Your task to perform on an android device: open app "Cash App" (install if not already installed) Image 0: 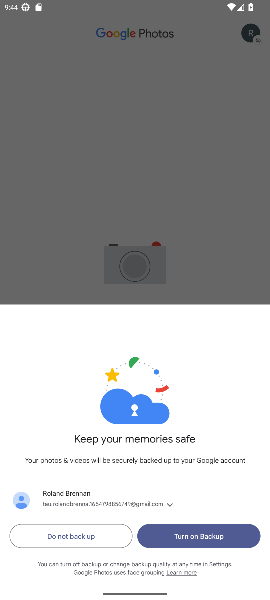
Step 0: press home button
Your task to perform on an android device: open app "Cash App" (install if not already installed) Image 1: 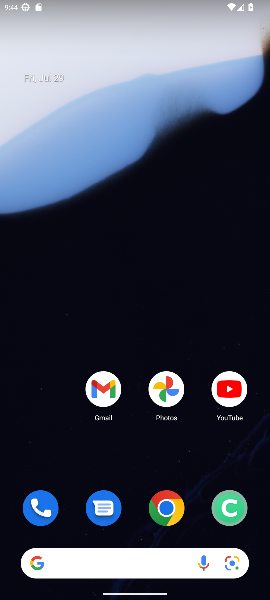
Step 1: drag from (144, 554) to (143, 17)
Your task to perform on an android device: open app "Cash App" (install if not already installed) Image 2: 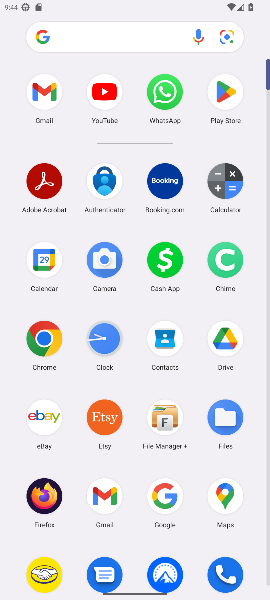
Step 2: drag from (192, 515) to (157, 262)
Your task to perform on an android device: open app "Cash App" (install if not already installed) Image 3: 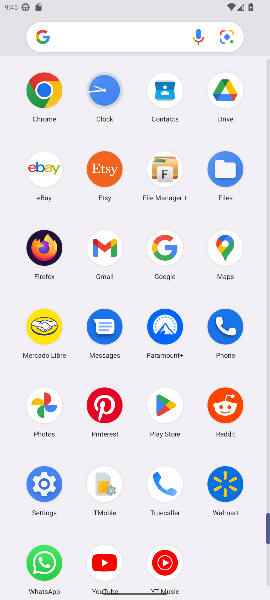
Step 3: click (173, 409)
Your task to perform on an android device: open app "Cash App" (install if not already installed) Image 4: 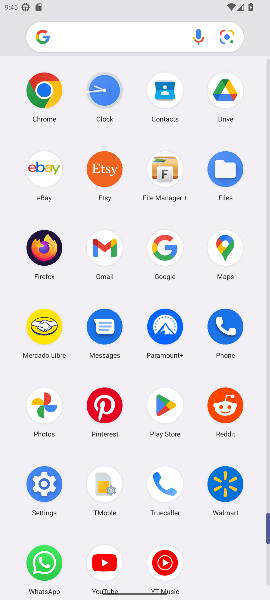
Step 4: click (173, 409)
Your task to perform on an android device: open app "Cash App" (install if not already installed) Image 5: 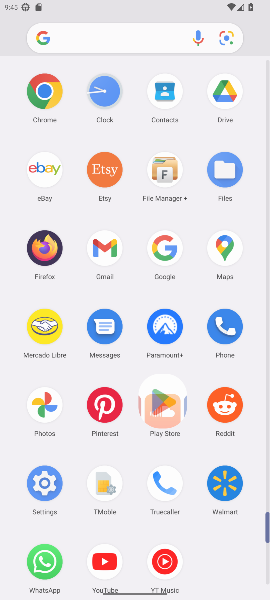
Step 5: click (173, 409)
Your task to perform on an android device: open app "Cash App" (install if not already installed) Image 6: 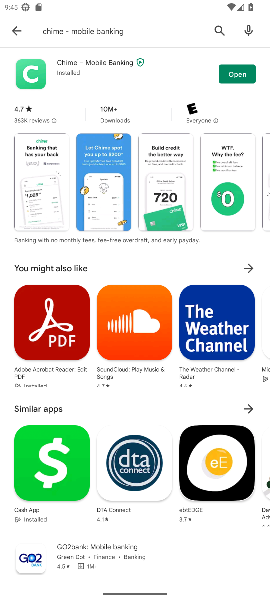
Step 6: click (214, 24)
Your task to perform on an android device: open app "Cash App" (install if not already installed) Image 7: 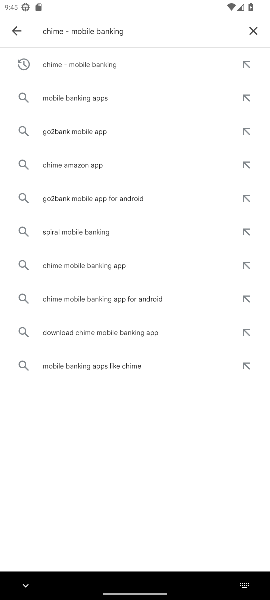
Step 7: click (252, 30)
Your task to perform on an android device: open app "Cash App" (install if not already installed) Image 8: 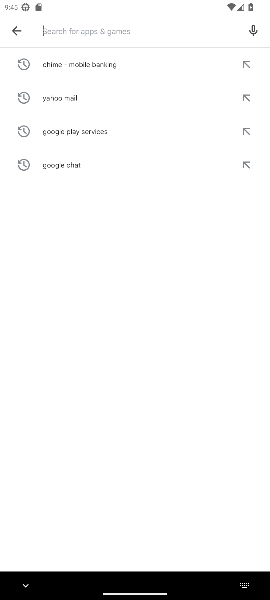
Step 8: type "casapp"
Your task to perform on an android device: open app "Cash App" (install if not already installed) Image 9: 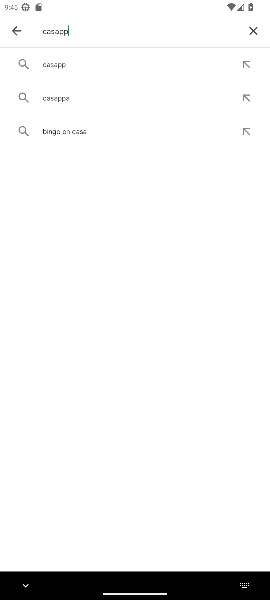
Step 9: click (257, 27)
Your task to perform on an android device: open app "Cash App" (install if not already installed) Image 10: 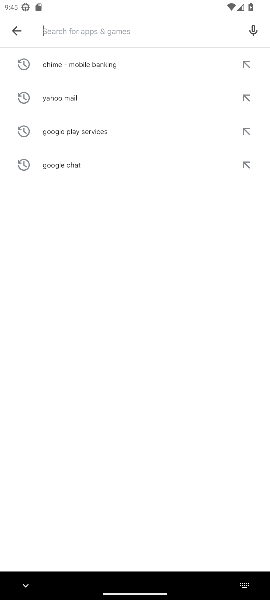
Step 10: click (74, 28)
Your task to perform on an android device: open app "Cash App" (install if not already installed) Image 11: 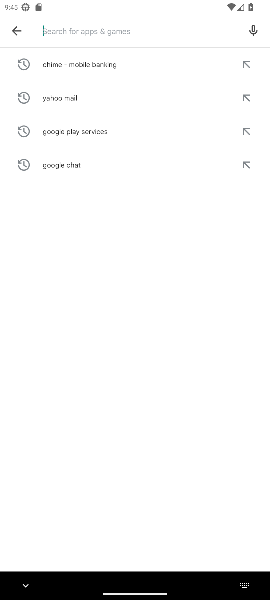
Step 11: type "cashapp"
Your task to perform on an android device: open app "Cash App" (install if not already installed) Image 12: 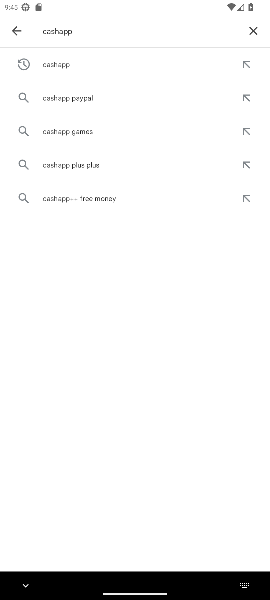
Step 12: click (96, 67)
Your task to perform on an android device: open app "Cash App" (install if not already installed) Image 13: 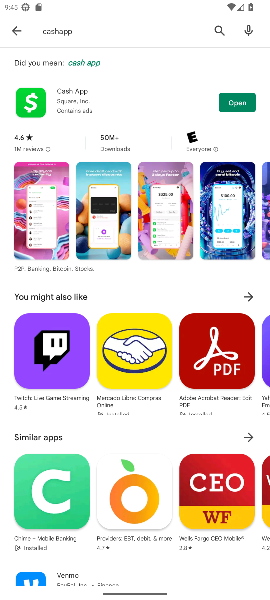
Step 13: click (239, 104)
Your task to perform on an android device: open app "Cash App" (install if not already installed) Image 14: 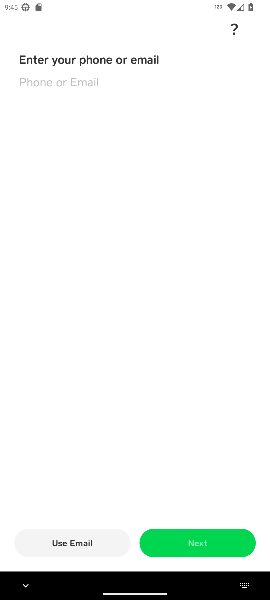
Step 14: task complete